Your task to perform on an android device: Open a new private window in the chrome app Image 0: 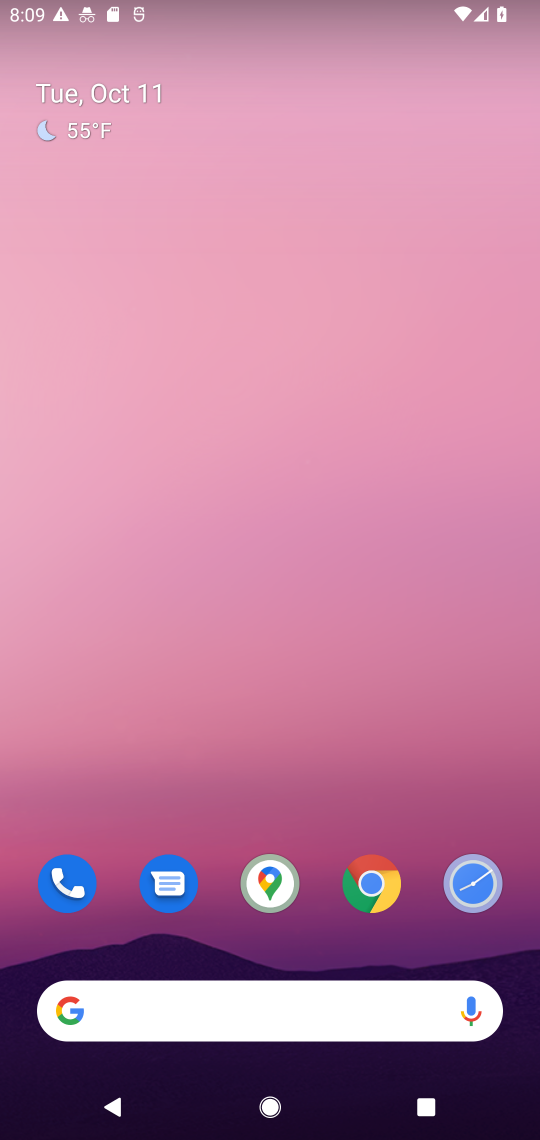
Step 0: drag from (340, 823) to (346, 98)
Your task to perform on an android device: Open a new private window in the chrome app Image 1: 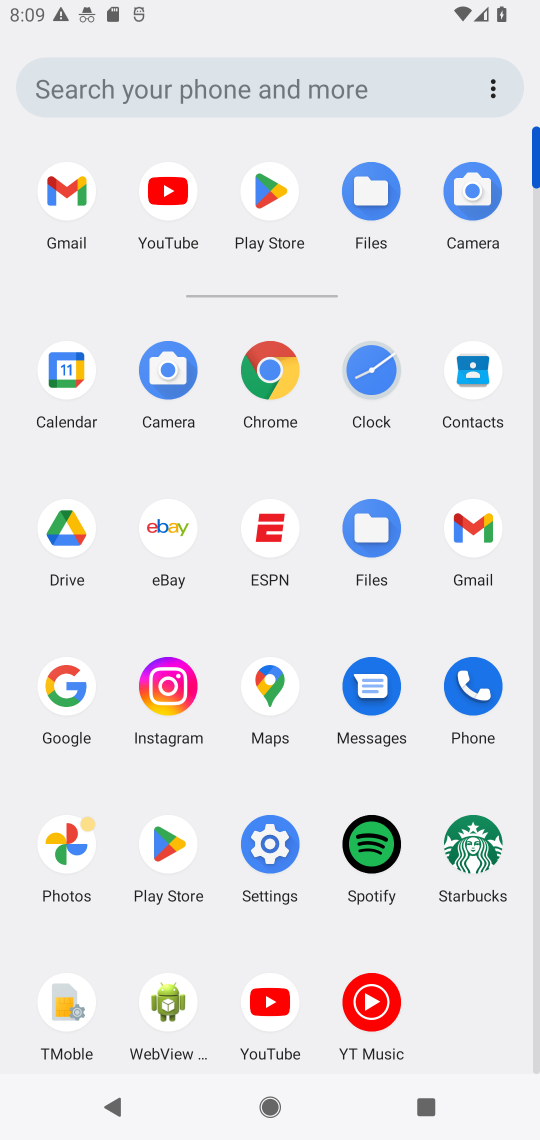
Step 1: click (264, 374)
Your task to perform on an android device: Open a new private window in the chrome app Image 2: 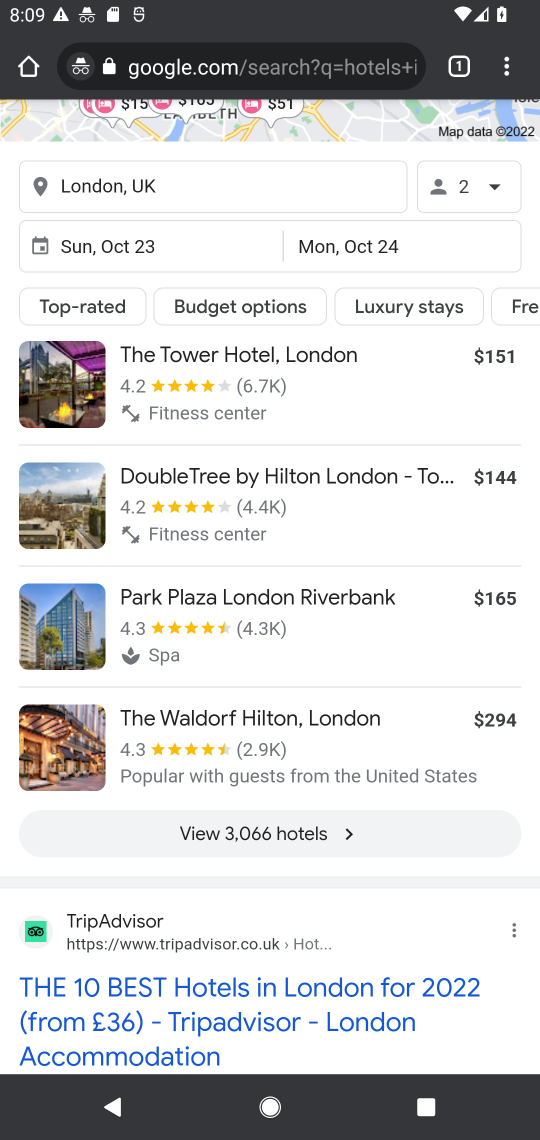
Step 2: task complete